Your task to perform on an android device: See recent photos Image 0: 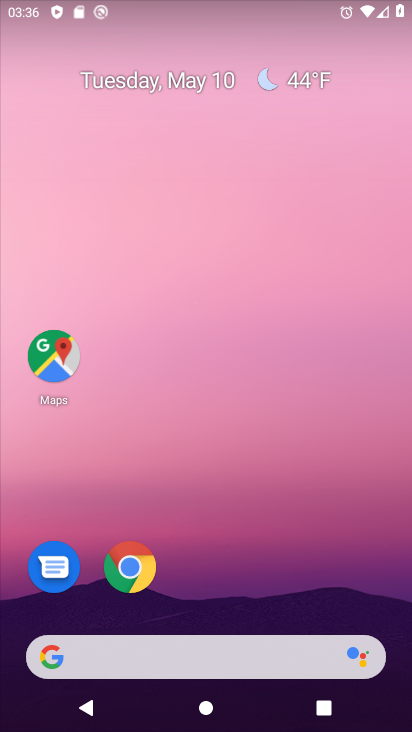
Step 0: drag from (218, 591) to (226, 63)
Your task to perform on an android device: See recent photos Image 1: 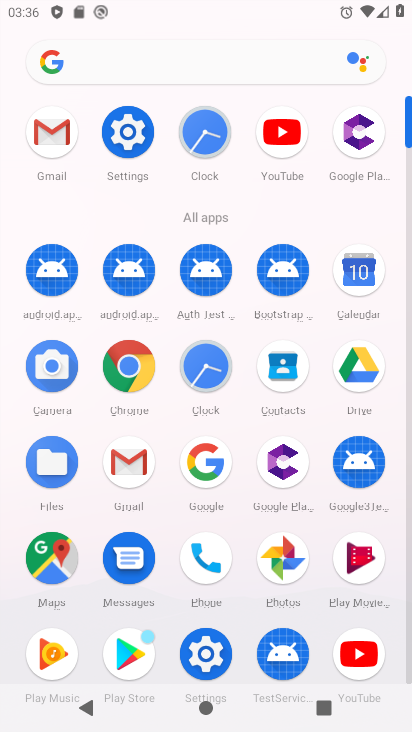
Step 1: click (283, 550)
Your task to perform on an android device: See recent photos Image 2: 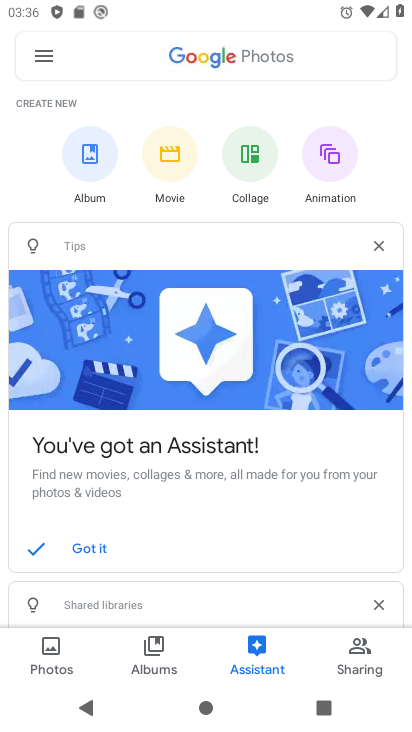
Step 2: click (56, 653)
Your task to perform on an android device: See recent photos Image 3: 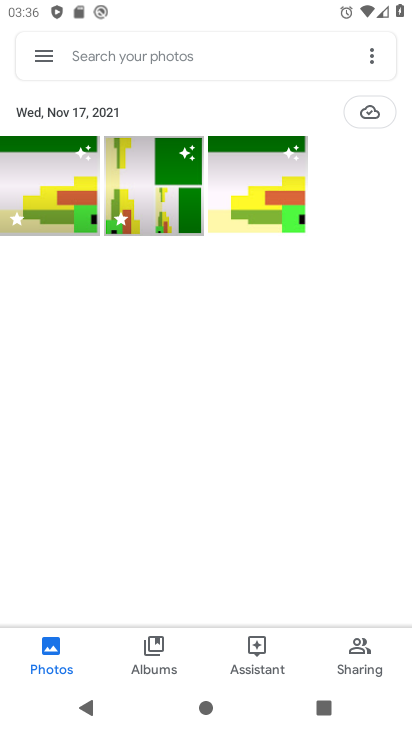
Step 3: task complete